Your task to perform on an android device: check the backup settings in the google photos Image 0: 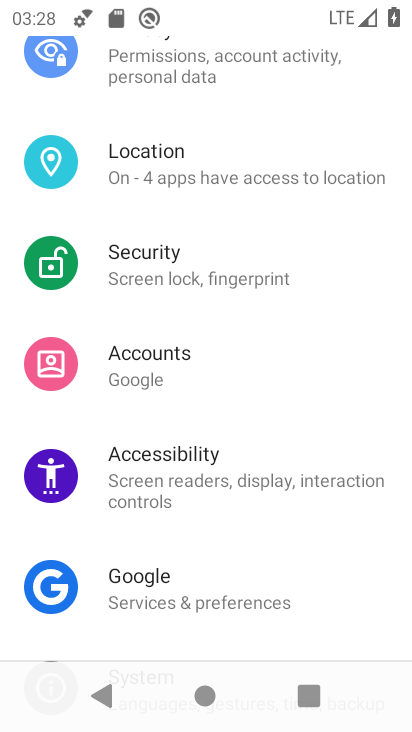
Step 0: press home button
Your task to perform on an android device: check the backup settings in the google photos Image 1: 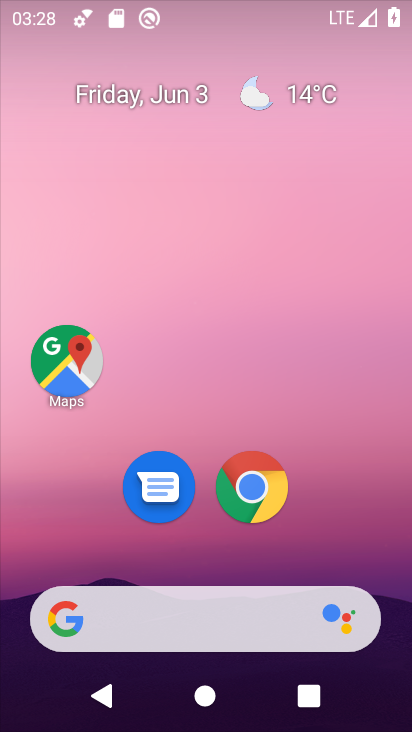
Step 1: drag from (336, 511) to (229, 12)
Your task to perform on an android device: check the backup settings in the google photos Image 2: 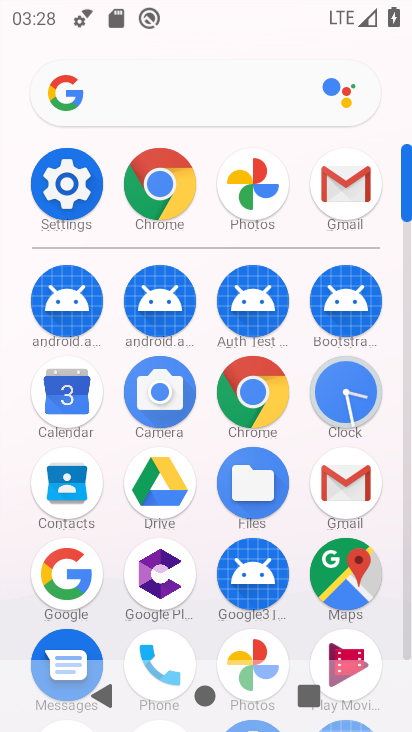
Step 2: click (262, 648)
Your task to perform on an android device: check the backup settings in the google photos Image 3: 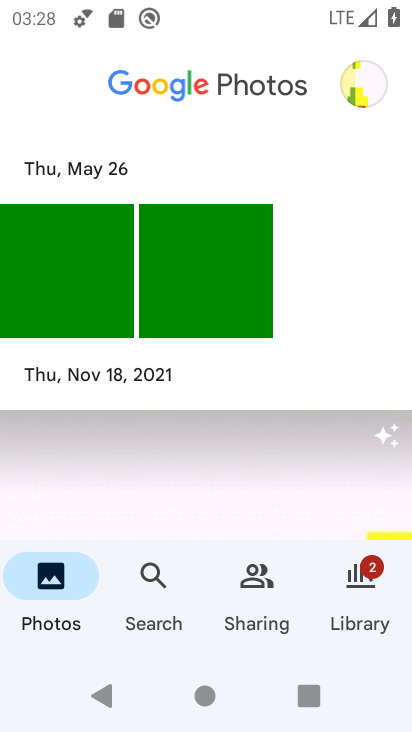
Step 3: click (360, 82)
Your task to perform on an android device: check the backup settings in the google photos Image 4: 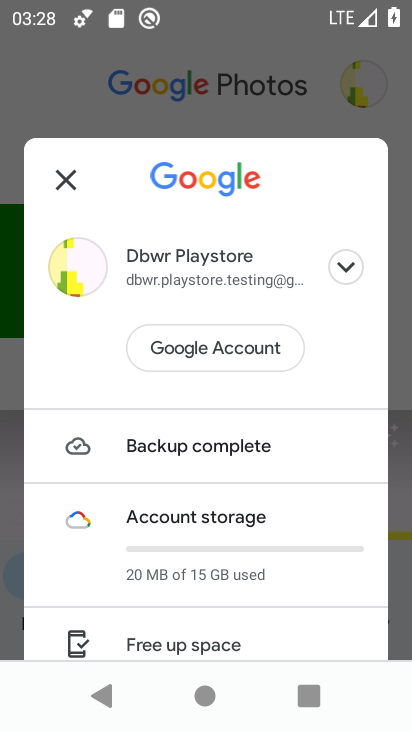
Step 4: drag from (255, 578) to (236, 70)
Your task to perform on an android device: check the backup settings in the google photos Image 5: 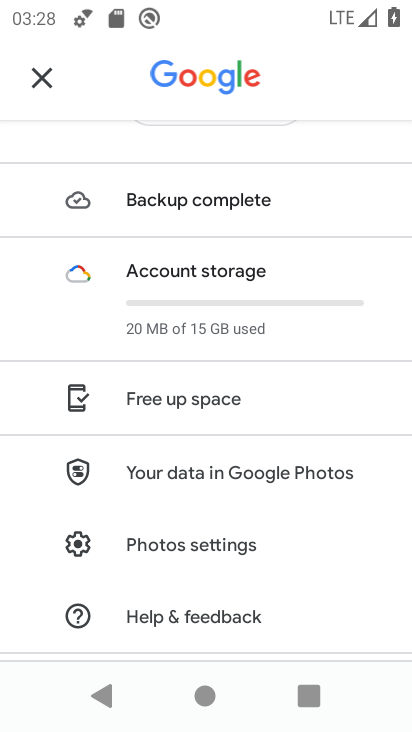
Step 5: click (209, 547)
Your task to perform on an android device: check the backup settings in the google photos Image 6: 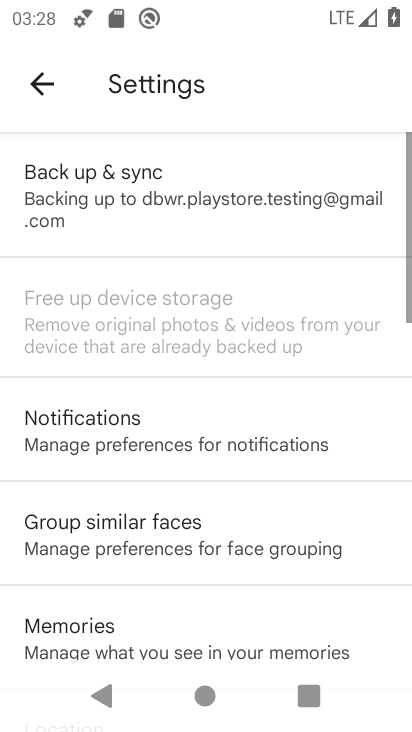
Step 6: click (175, 182)
Your task to perform on an android device: check the backup settings in the google photos Image 7: 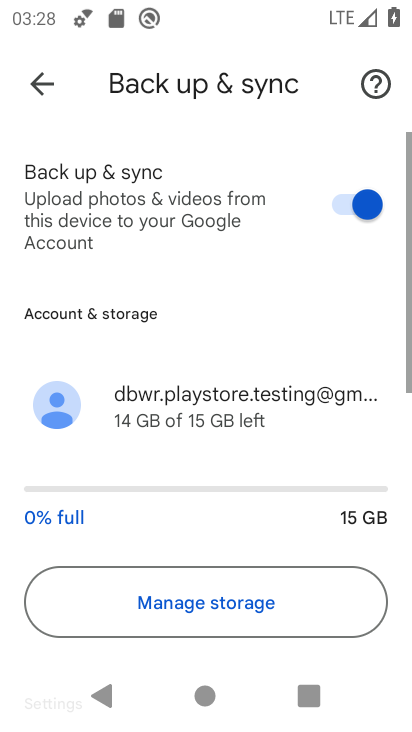
Step 7: task complete